Your task to perform on an android device: Empty the shopping cart on walmart. Image 0: 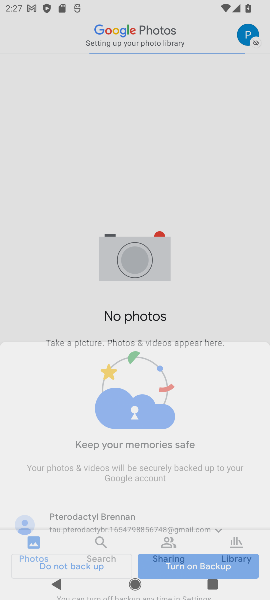
Step 0: press home button
Your task to perform on an android device: Empty the shopping cart on walmart. Image 1: 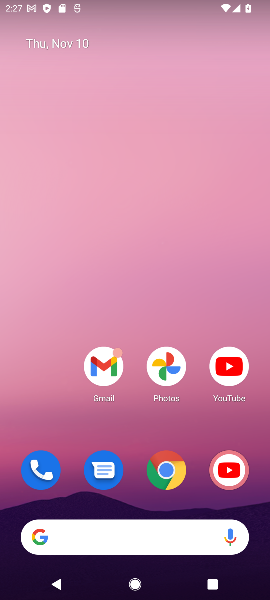
Step 1: click (163, 461)
Your task to perform on an android device: Empty the shopping cart on walmart. Image 2: 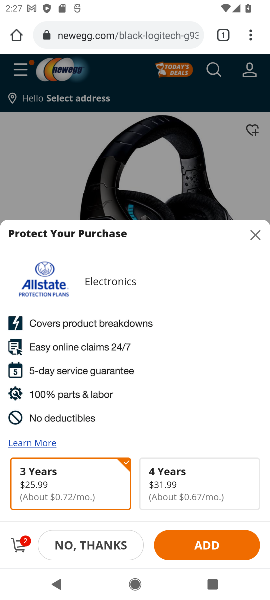
Step 2: click (222, 36)
Your task to perform on an android device: Empty the shopping cart on walmart. Image 3: 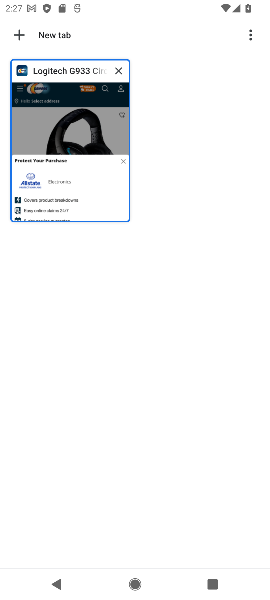
Step 3: click (21, 35)
Your task to perform on an android device: Empty the shopping cart on walmart. Image 4: 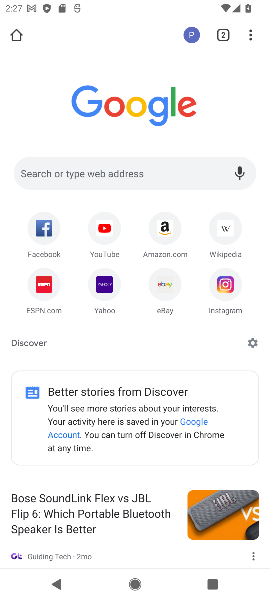
Step 4: click (101, 173)
Your task to perform on an android device: Empty the shopping cart on walmart. Image 5: 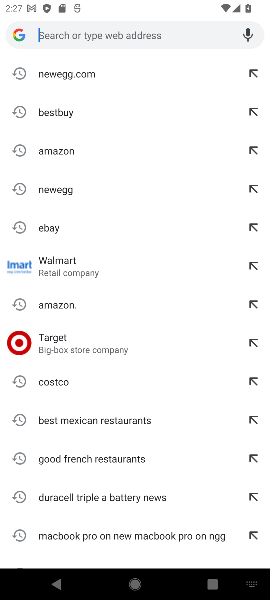
Step 5: click (80, 268)
Your task to perform on an android device: Empty the shopping cart on walmart. Image 6: 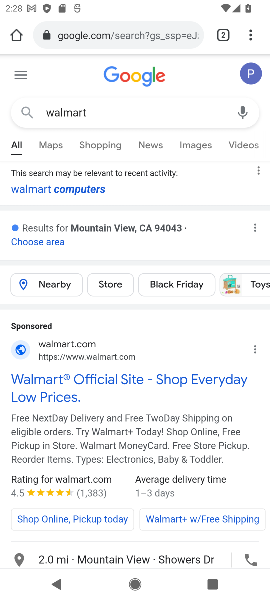
Step 6: click (51, 381)
Your task to perform on an android device: Empty the shopping cart on walmart. Image 7: 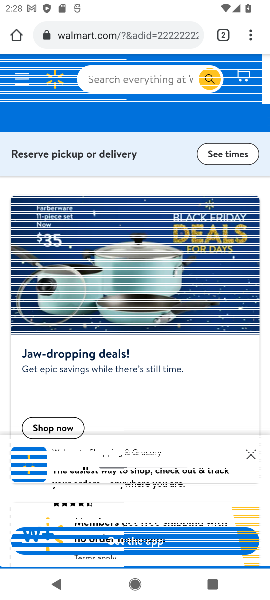
Step 7: task complete